Your task to perform on an android device: Is it going to rain this weekend? Image 0: 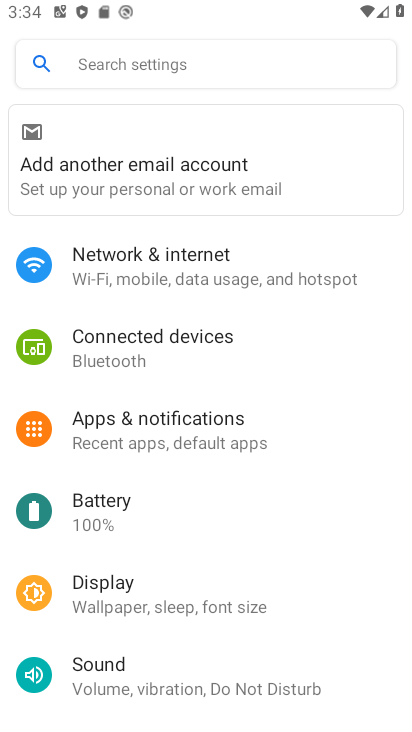
Step 0: press home button
Your task to perform on an android device: Is it going to rain this weekend? Image 1: 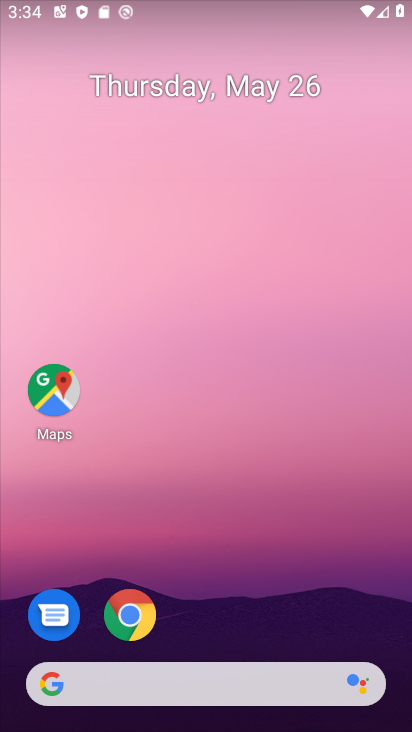
Step 1: drag from (22, 195) to (411, 207)
Your task to perform on an android device: Is it going to rain this weekend? Image 2: 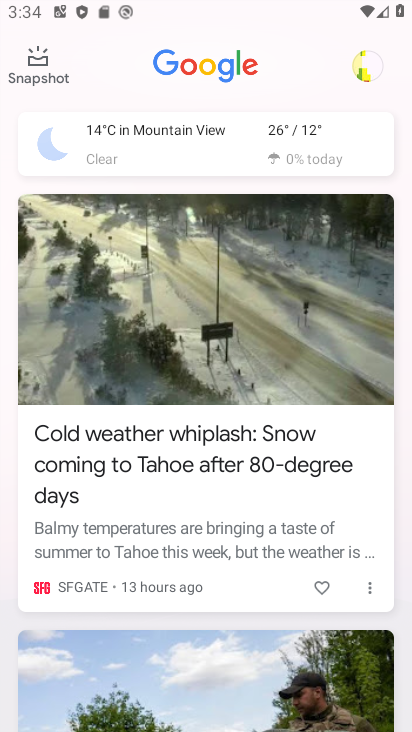
Step 2: click (328, 136)
Your task to perform on an android device: Is it going to rain this weekend? Image 3: 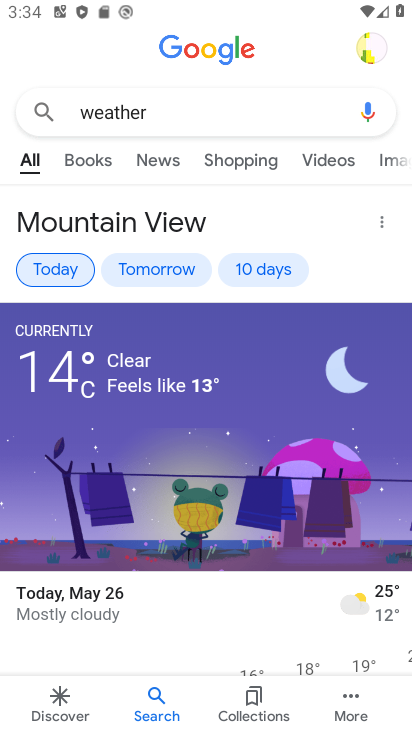
Step 3: click (253, 263)
Your task to perform on an android device: Is it going to rain this weekend? Image 4: 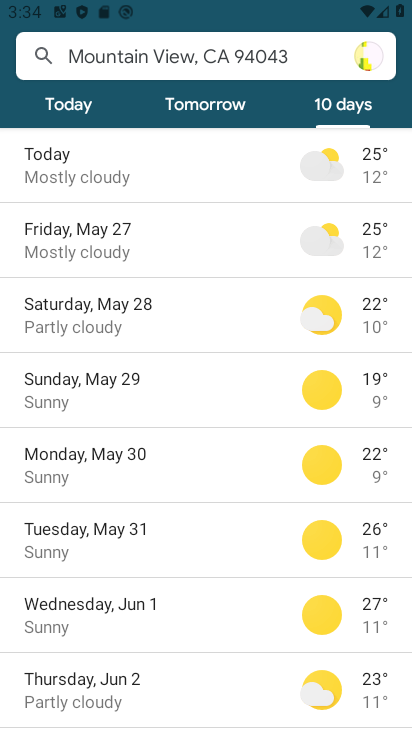
Step 4: task complete